Your task to perform on an android device: see tabs open on other devices in the chrome app Image 0: 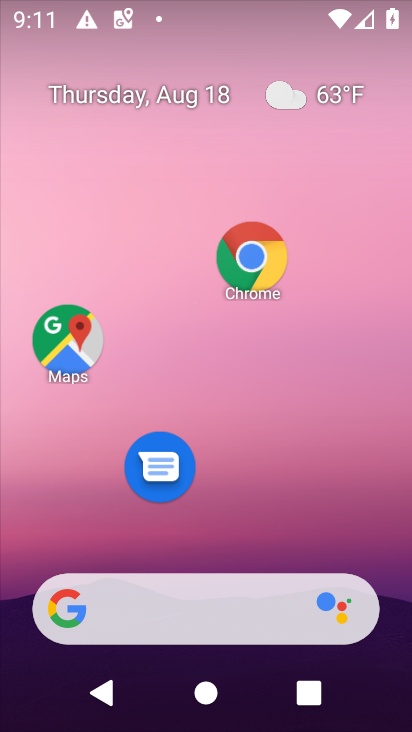
Step 0: drag from (325, 501) to (258, 144)
Your task to perform on an android device: see tabs open on other devices in the chrome app Image 1: 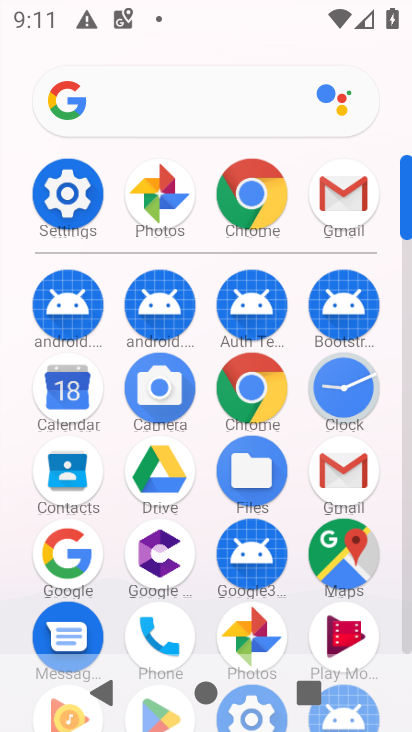
Step 1: click (258, 205)
Your task to perform on an android device: see tabs open on other devices in the chrome app Image 2: 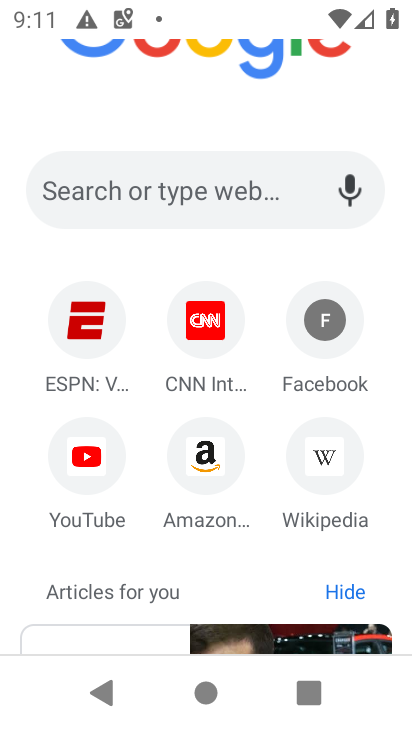
Step 2: task complete